Your task to perform on an android device: Open the phone app and click the voicemail tab. Image 0: 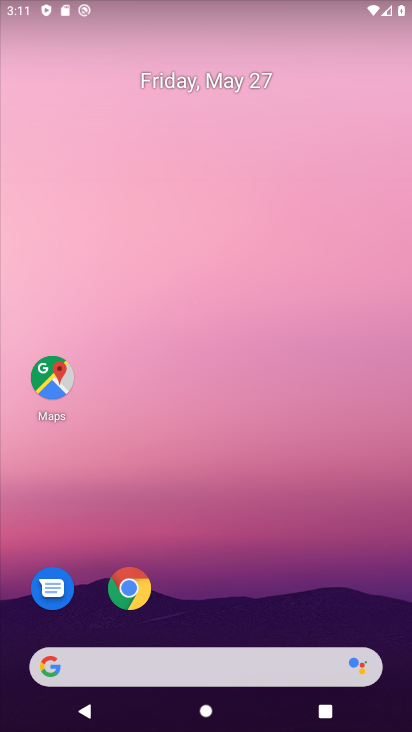
Step 0: drag from (333, 509) to (304, 6)
Your task to perform on an android device: Open the phone app and click the voicemail tab. Image 1: 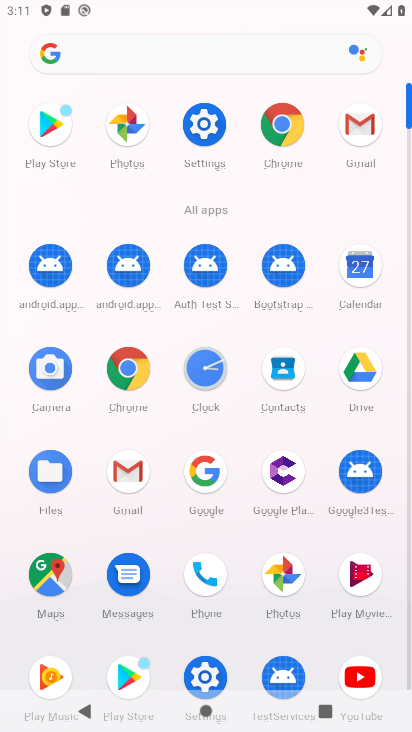
Step 1: click (288, 562)
Your task to perform on an android device: Open the phone app and click the voicemail tab. Image 2: 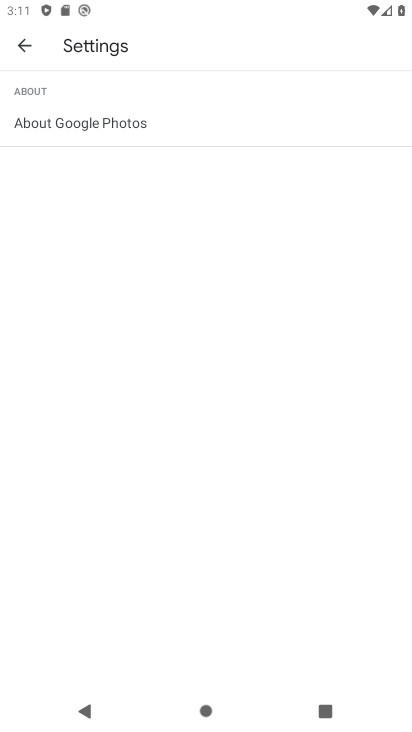
Step 2: click (25, 30)
Your task to perform on an android device: Open the phone app and click the voicemail tab. Image 3: 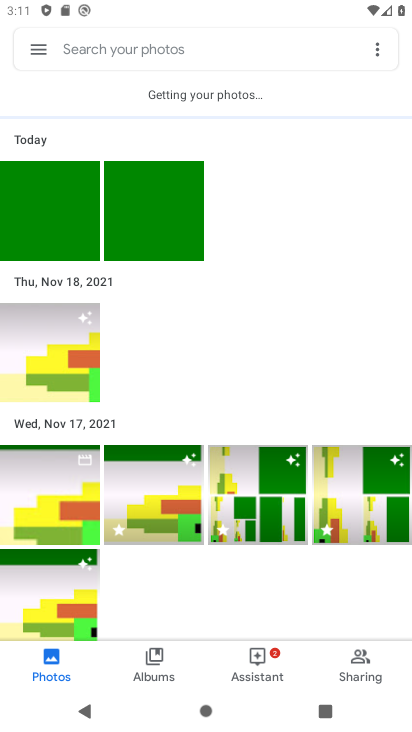
Step 3: task complete